Your task to perform on an android device: Add logitech g502 to the cart on costco.com Image 0: 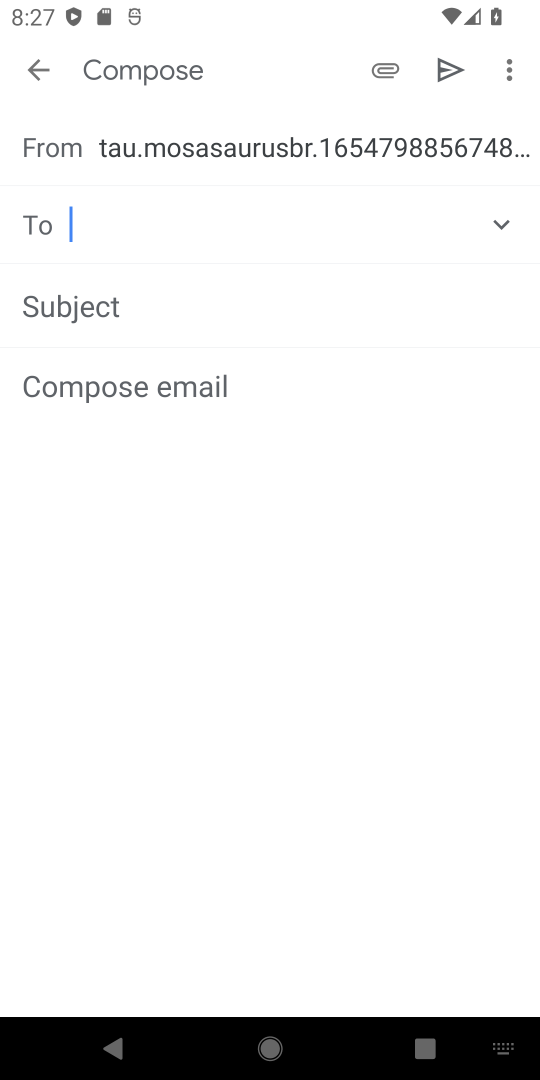
Step 0: press home button
Your task to perform on an android device: Add logitech g502 to the cart on costco.com Image 1: 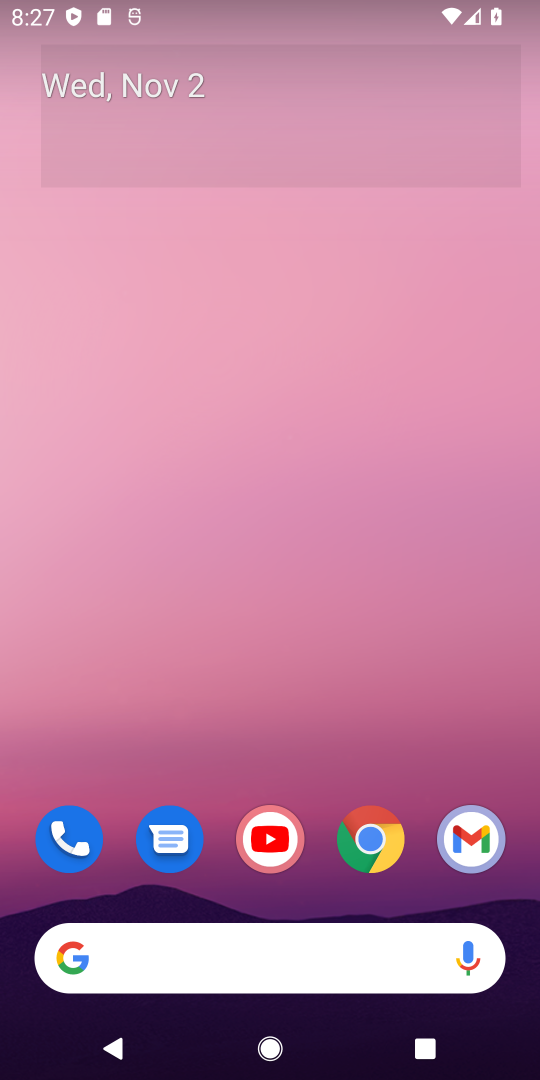
Step 1: click (370, 843)
Your task to perform on an android device: Add logitech g502 to the cart on costco.com Image 2: 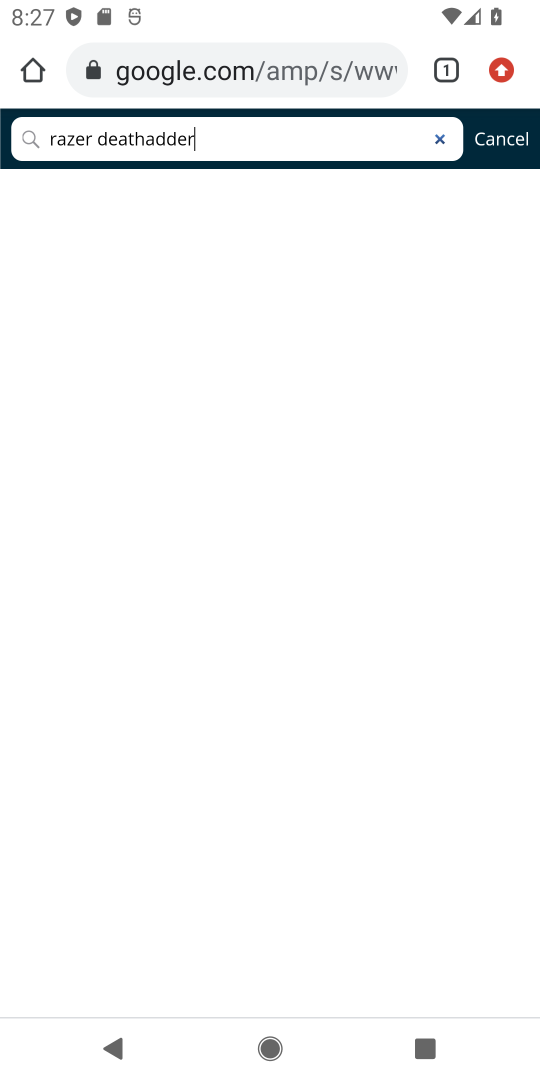
Step 2: click (261, 76)
Your task to perform on an android device: Add logitech g502 to the cart on costco.com Image 3: 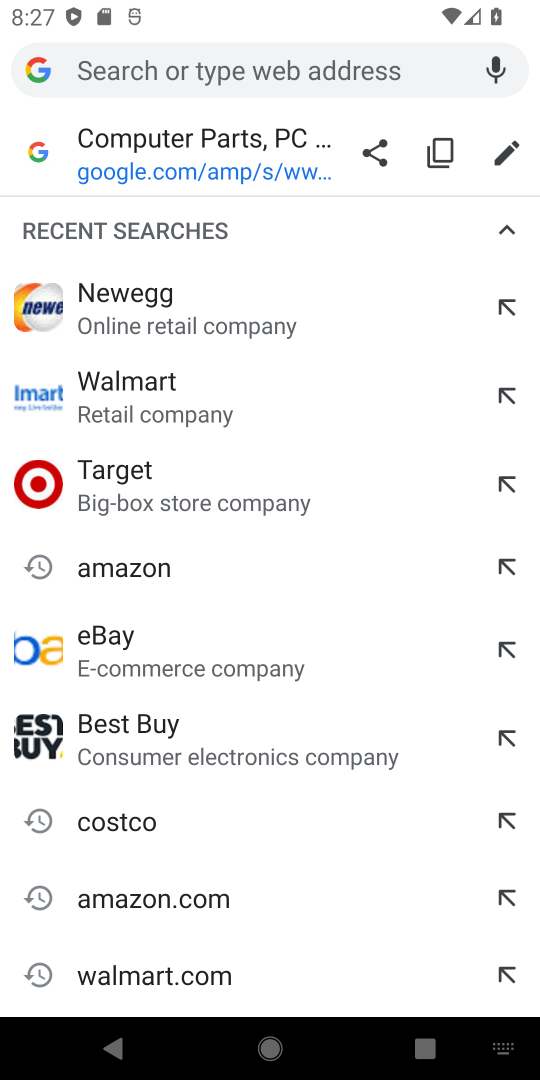
Step 3: type "costco.com"
Your task to perform on an android device: Add logitech g502 to the cart on costco.com Image 4: 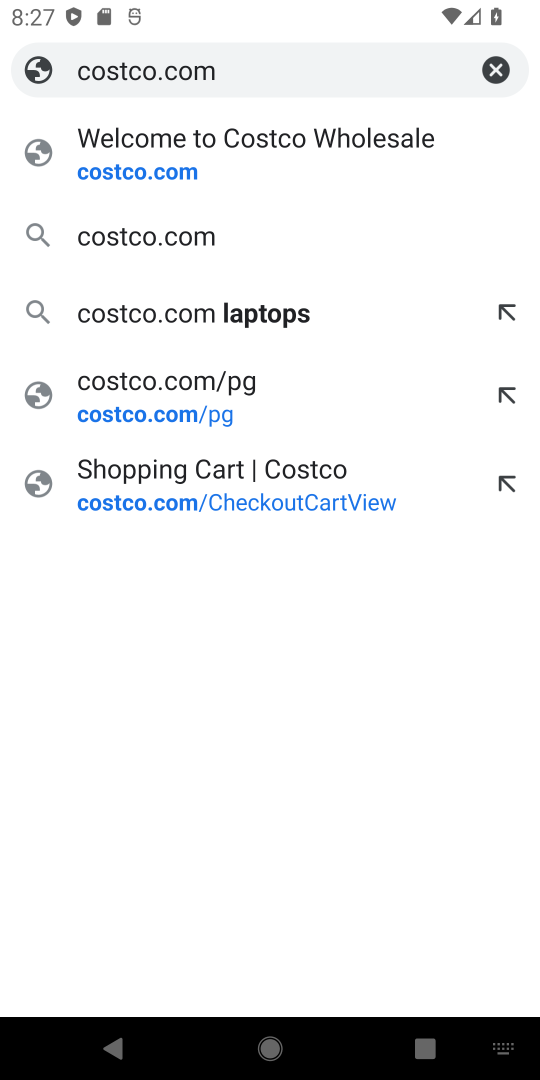
Step 4: click (207, 245)
Your task to perform on an android device: Add logitech g502 to the cart on costco.com Image 5: 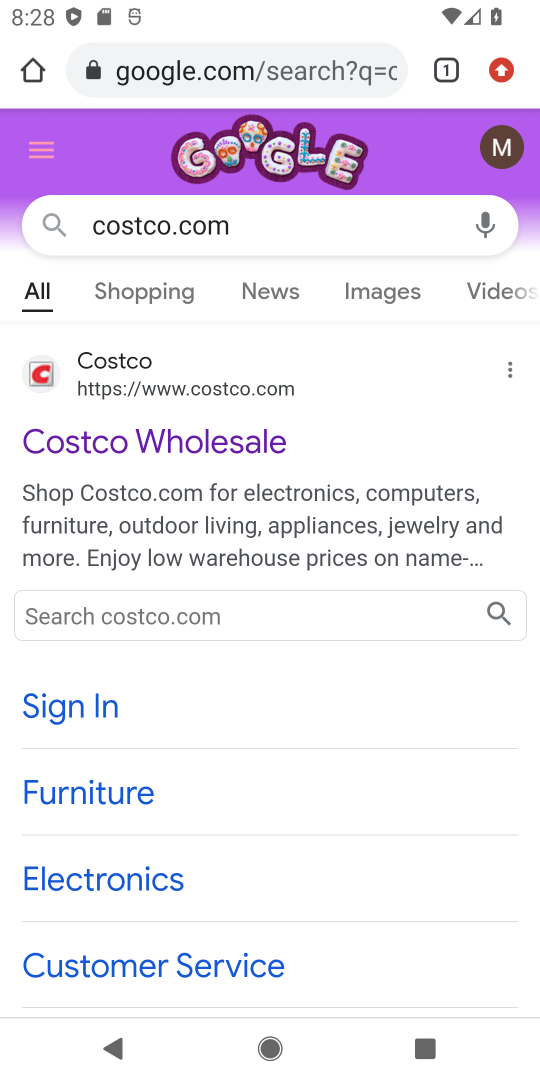
Step 5: click (202, 445)
Your task to perform on an android device: Add logitech g502 to the cart on costco.com Image 6: 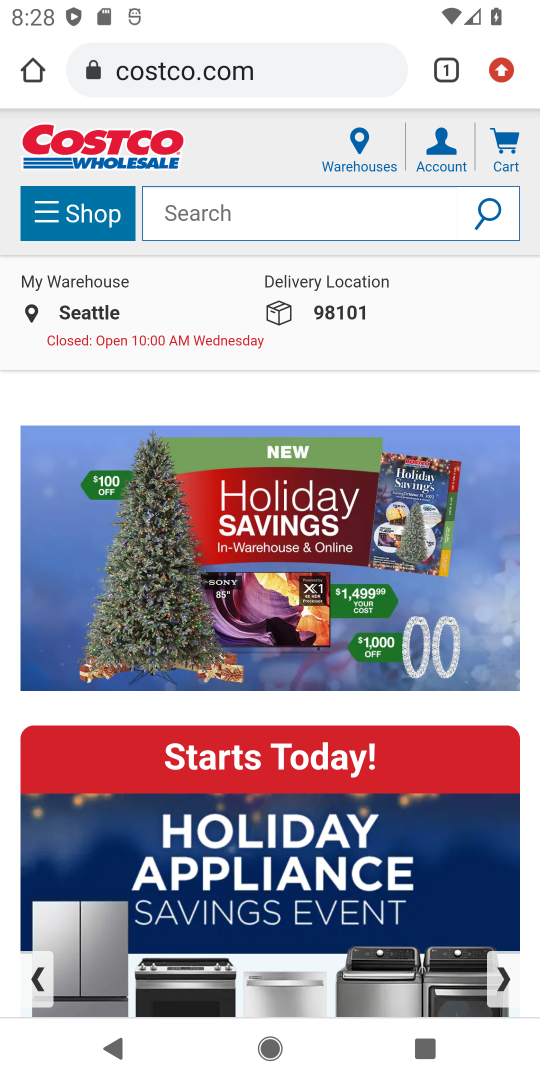
Step 6: click (275, 216)
Your task to perform on an android device: Add logitech g502 to the cart on costco.com Image 7: 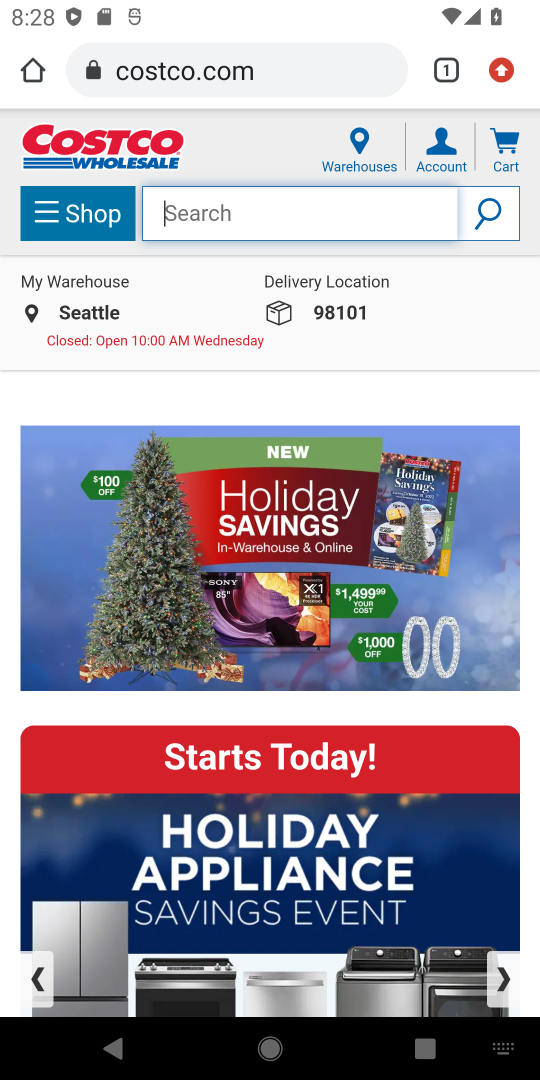
Step 7: type "logitech g502"
Your task to perform on an android device: Add logitech g502 to the cart on costco.com Image 8: 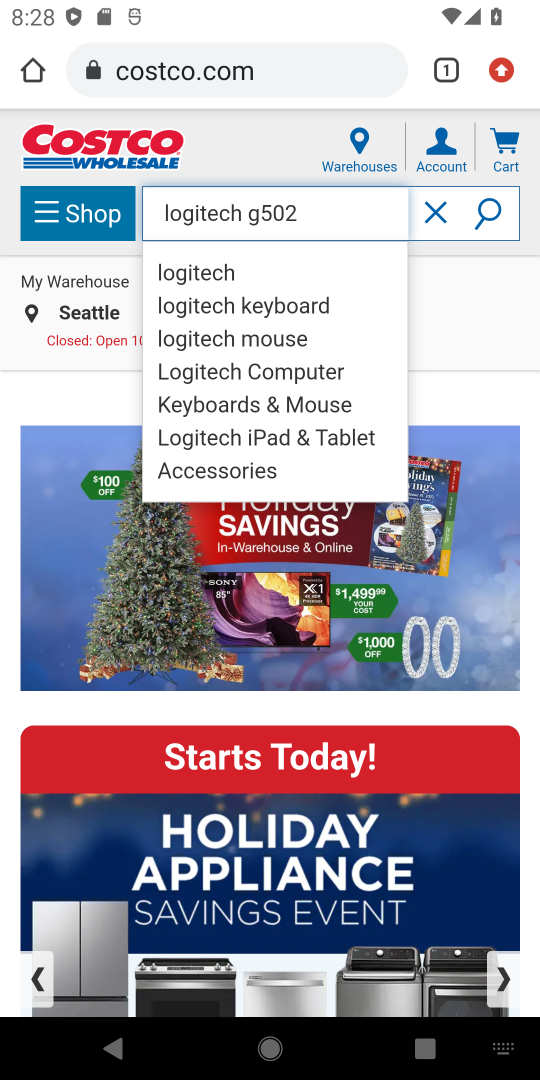
Step 8: click (494, 212)
Your task to perform on an android device: Add logitech g502 to the cart on costco.com Image 9: 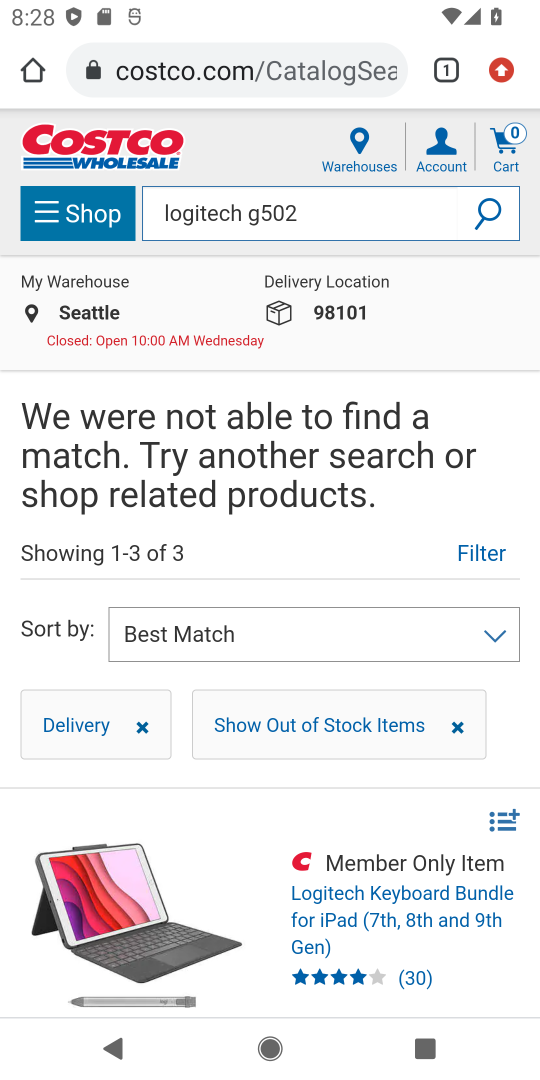
Step 9: task complete